Your task to perform on an android device: star an email in the gmail app Image 0: 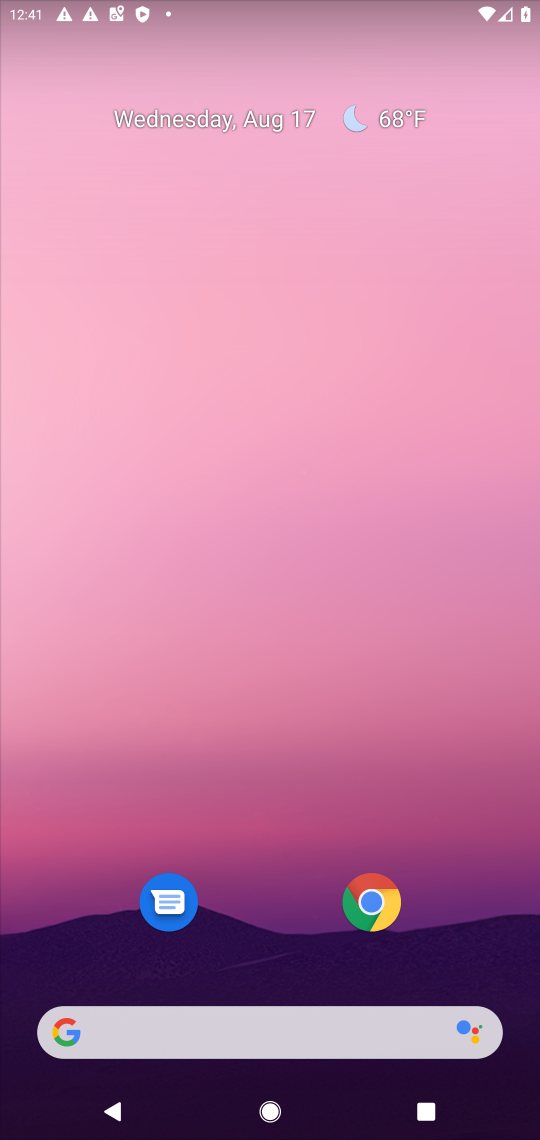
Step 0: drag from (294, 944) to (302, 0)
Your task to perform on an android device: star an email in the gmail app Image 1: 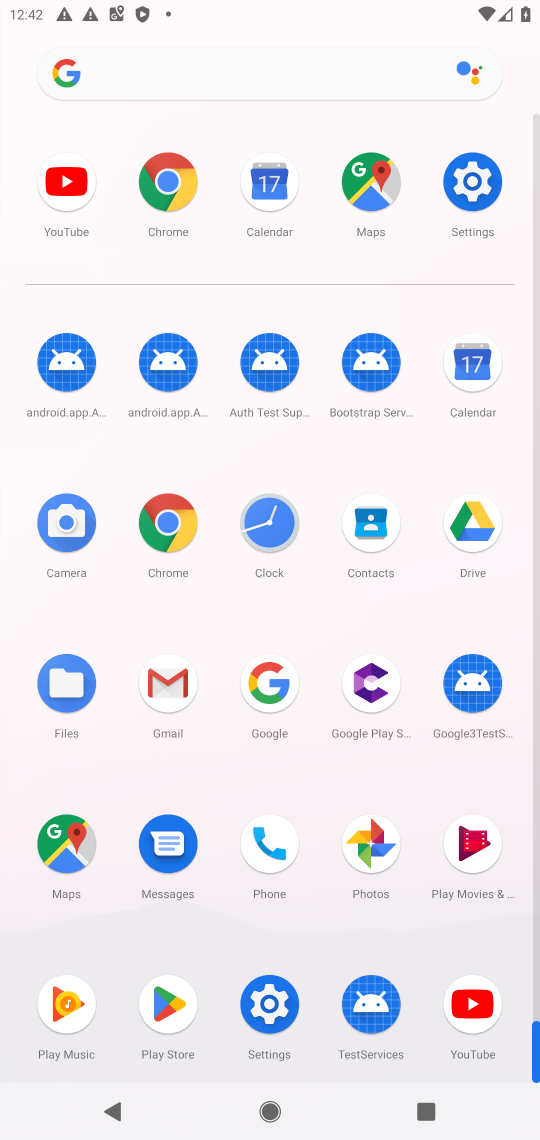
Step 1: click (174, 702)
Your task to perform on an android device: star an email in the gmail app Image 2: 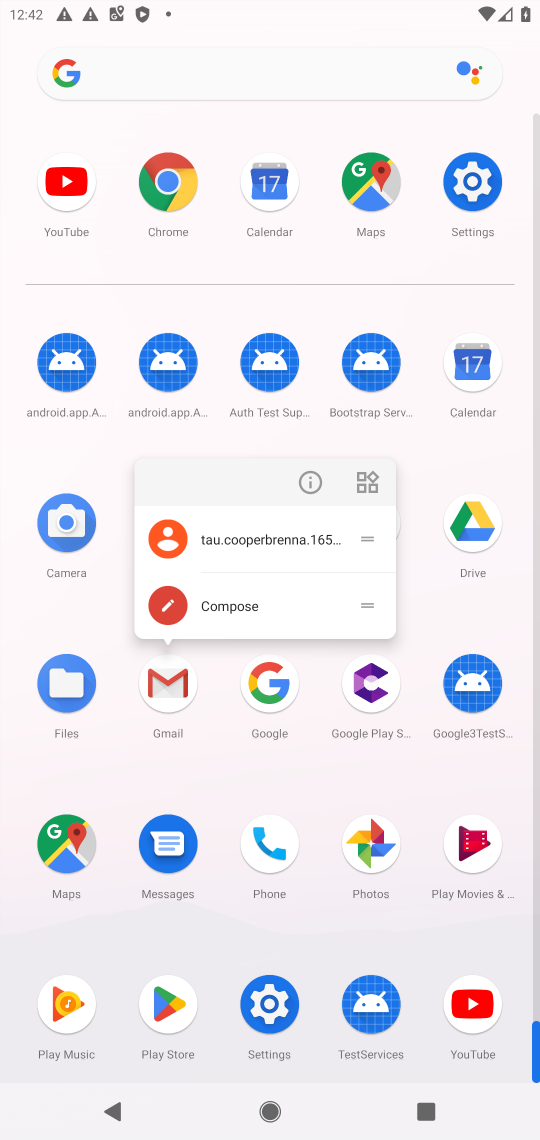
Step 2: click (186, 690)
Your task to perform on an android device: star an email in the gmail app Image 3: 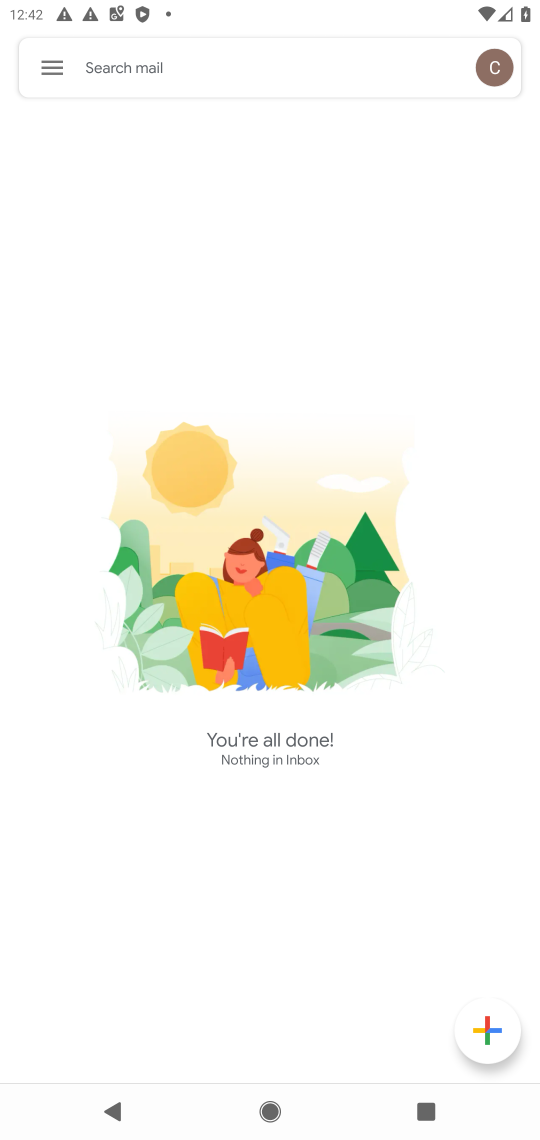
Step 3: task complete